Your task to perform on an android device: Check the news Image 0: 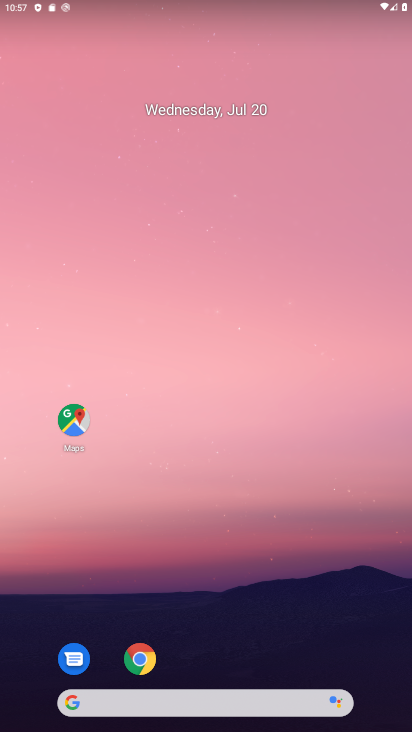
Step 0: drag from (243, 652) to (256, 22)
Your task to perform on an android device: Check the news Image 1: 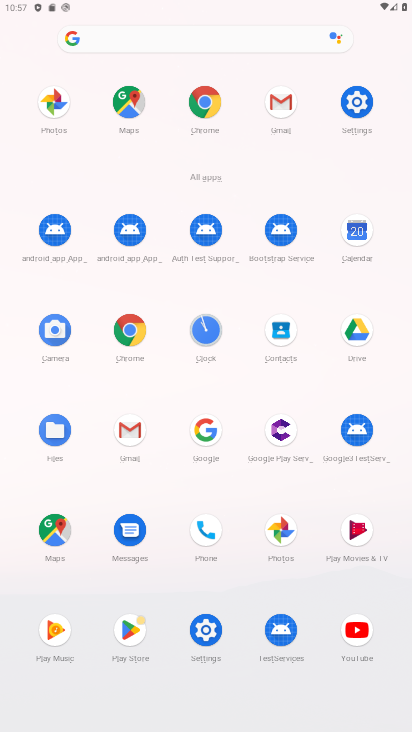
Step 1: click (213, 33)
Your task to perform on an android device: Check the news Image 2: 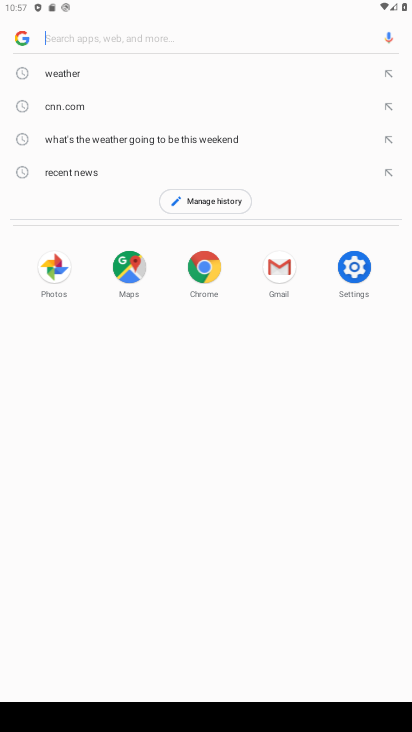
Step 2: type "news"
Your task to perform on an android device: Check the news Image 3: 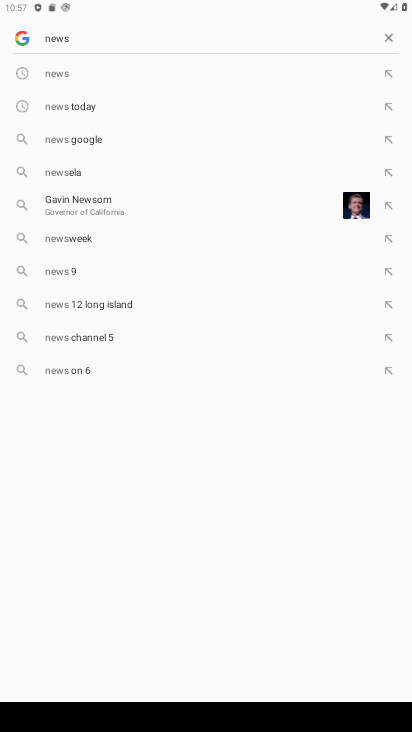
Step 3: click (55, 63)
Your task to perform on an android device: Check the news Image 4: 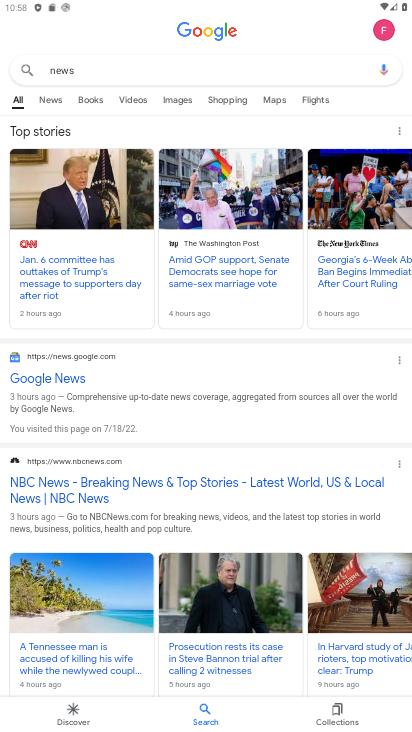
Step 4: task complete